Your task to perform on an android device: What's the weather going to be tomorrow? Image 0: 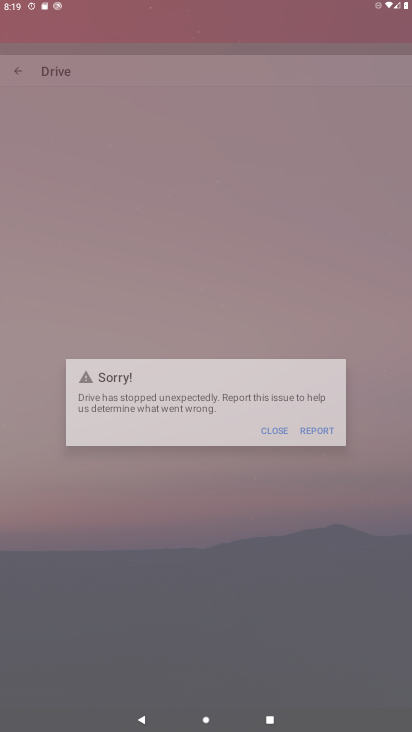
Step 0: press home button
Your task to perform on an android device: What's the weather going to be tomorrow? Image 1: 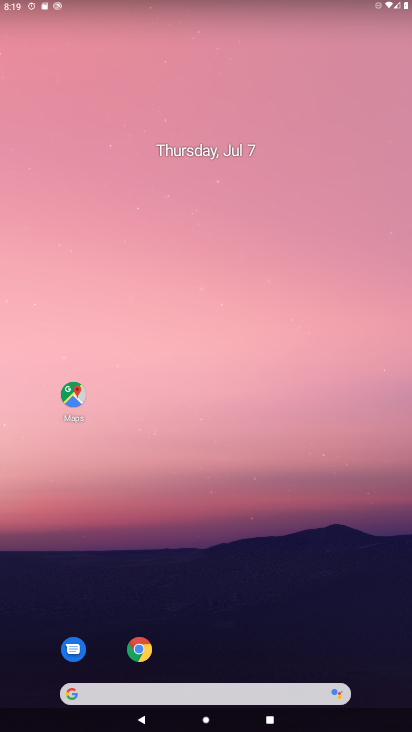
Step 1: drag from (205, 659) to (205, 88)
Your task to perform on an android device: What's the weather going to be tomorrow? Image 2: 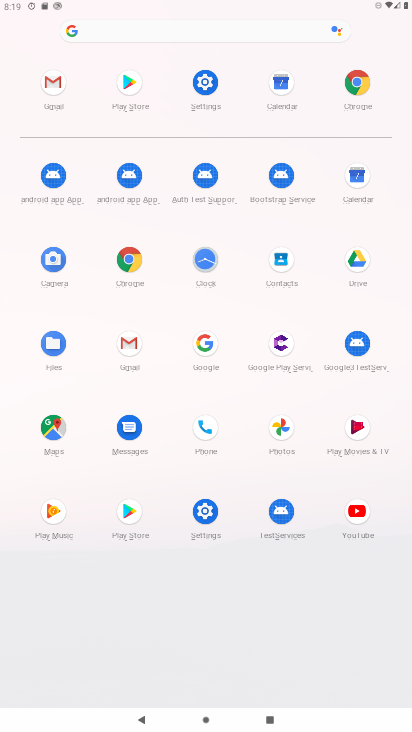
Step 2: press back button
Your task to perform on an android device: What's the weather going to be tomorrow? Image 3: 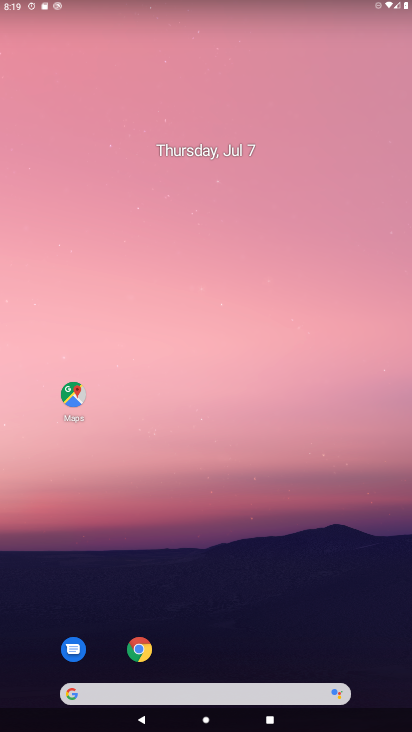
Step 3: click (190, 690)
Your task to perform on an android device: What's the weather going to be tomorrow? Image 4: 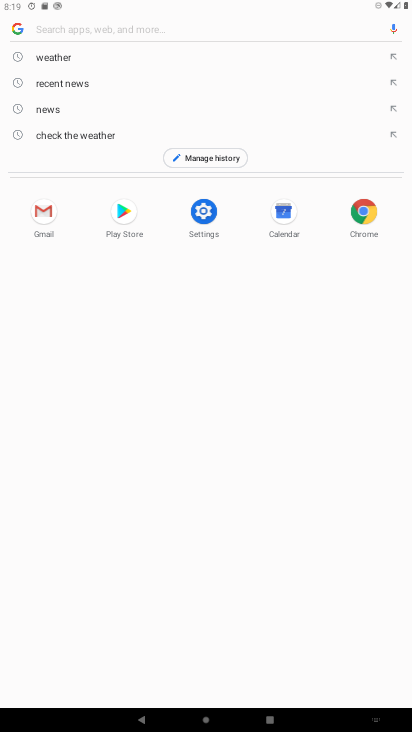
Step 4: click (82, 56)
Your task to perform on an android device: What's the weather going to be tomorrow? Image 5: 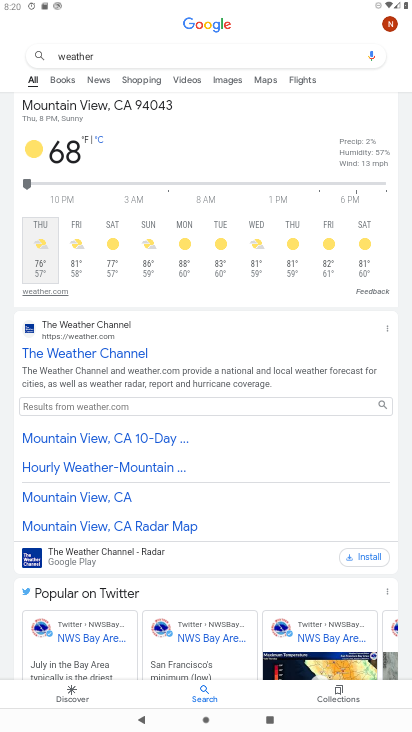
Step 5: click (77, 225)
Your task to perform on an android device: What's the weather going to be tomorrow? Image 6: 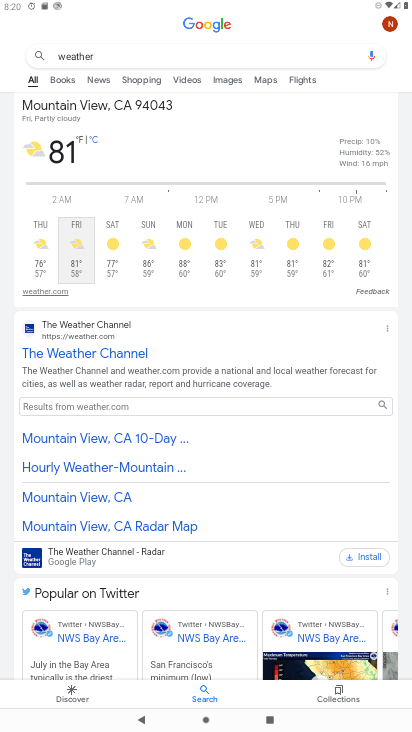
Step 6: drag from (205, 573) to (237, 146)
Your task to perform on an android device: What's the weather going to be tomorrow? Image 7: 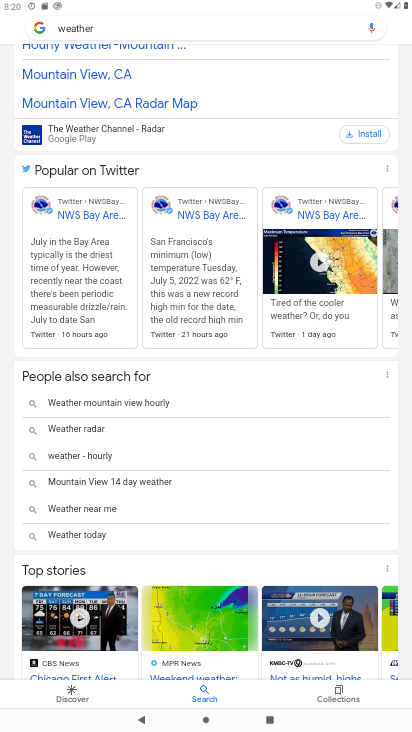
Step 7: click (106, 529)
Your task to perform on an android device: What's the weather going to be tomorrow? Image 8: 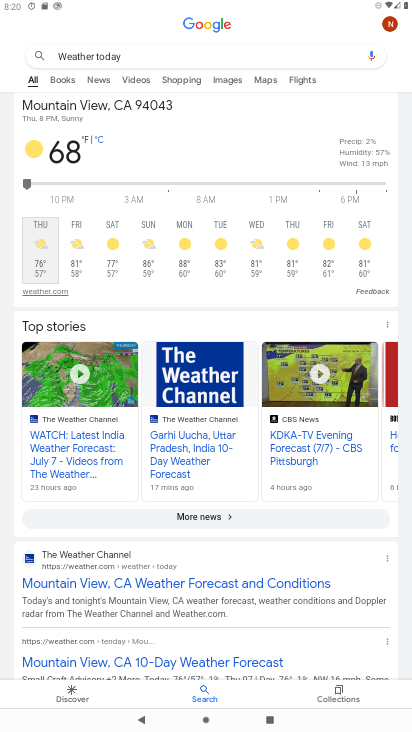
Step 8: click (77, 222)
Your task to perform on an android device: What's the weather going to be tomorrow? Image 9: 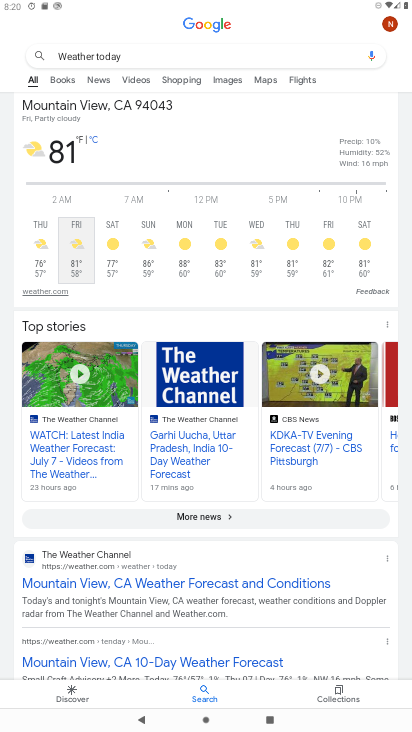
Step 9: task complete